Your task to perform on an android device: Open ESPN.com Image 0: 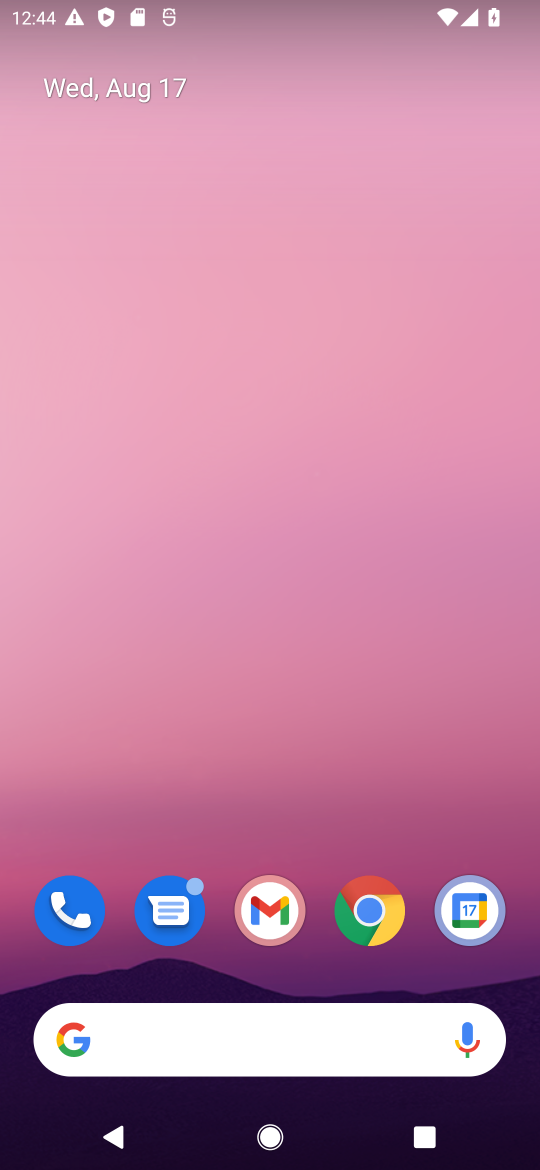
Step 0: click (378, 908)
Your task to perform on an android device: Open ESPN.com Image 1: 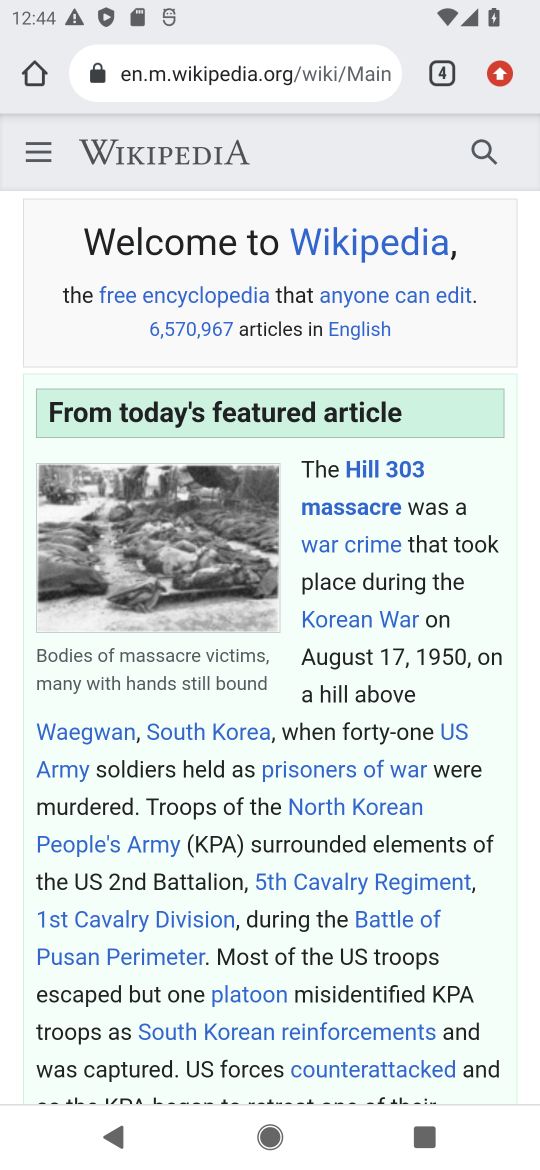
Step 1: click (437, 82)
Your task to perform on an android device: Open ESPN.com Image 2: 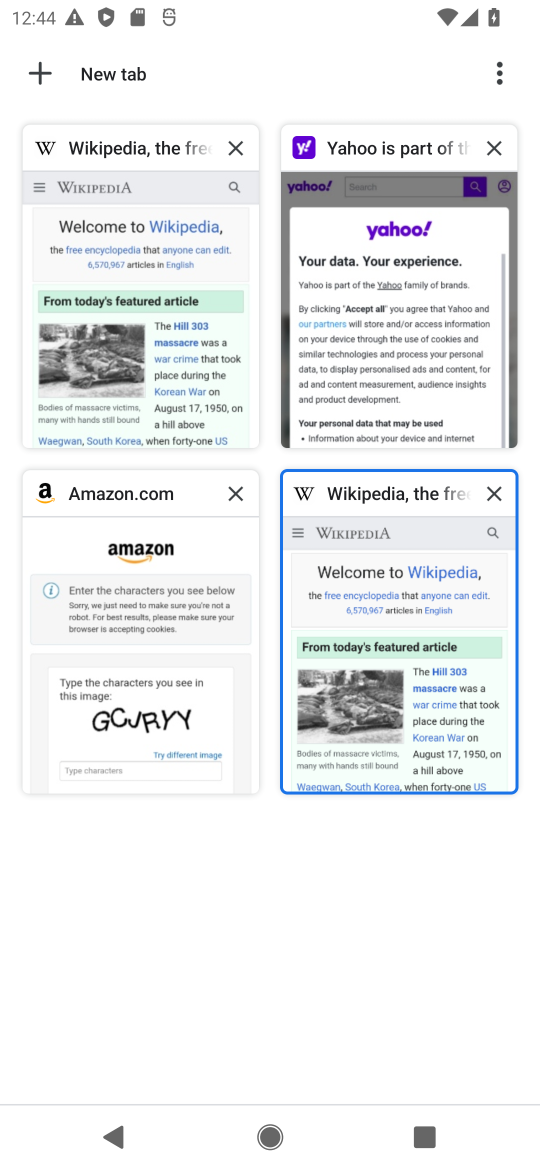
Step 2: click (35, 66)
Your task to perform on an android device: Open ESPN.com Image 3: 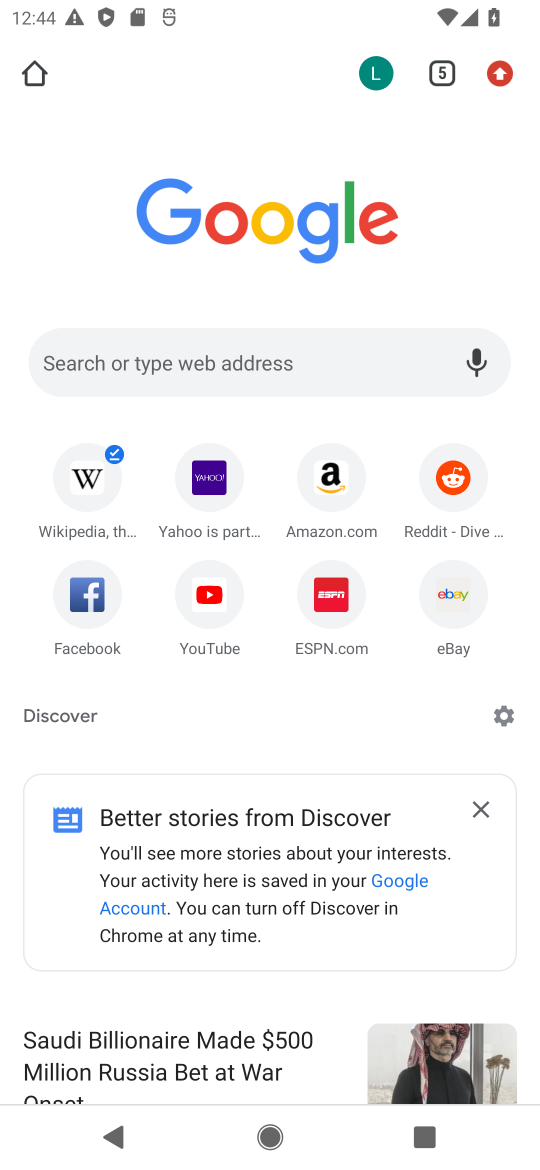
Step 3: click (337, 621)
Your task to perform on an android device: Open ESPN.com Image 4: 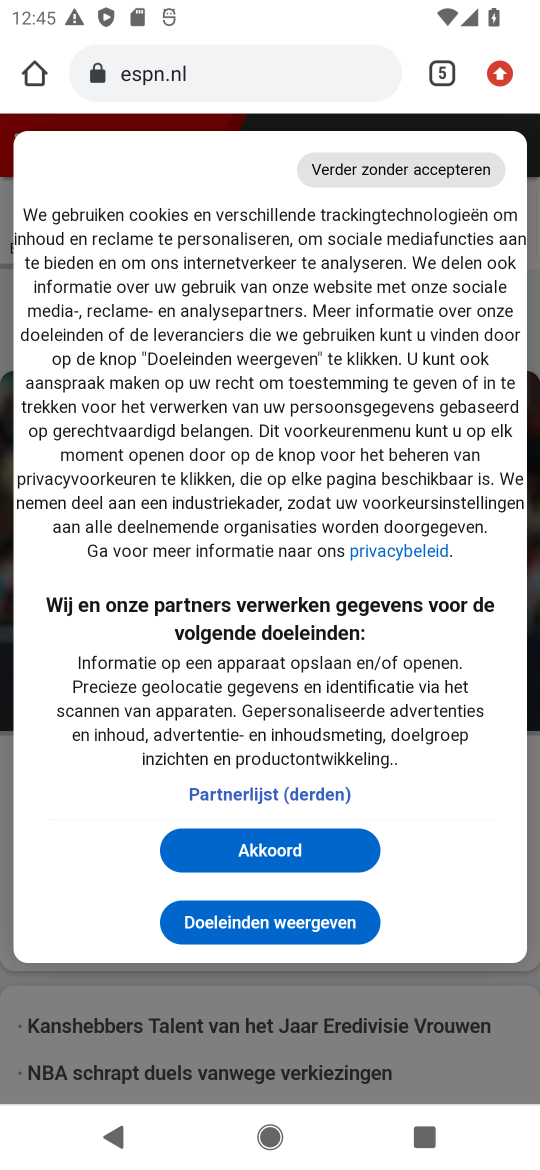
Step 4: task complete